Your task to perform on an android device: stop showing notifications on the lock screen Image 0: 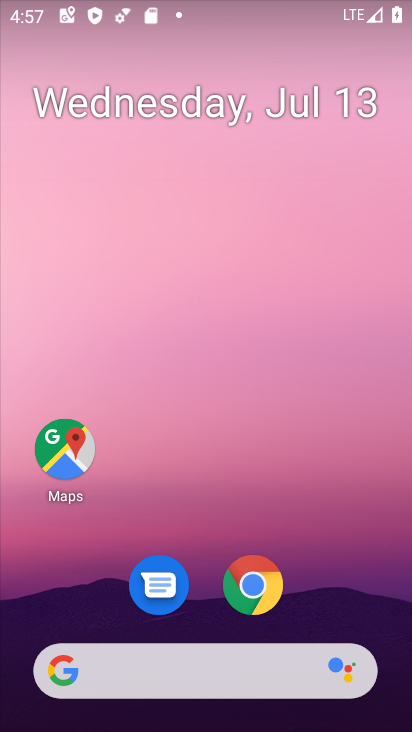
Step 0: drag from (312, 551) to (326, 36)
Your task to perform on an android device: stop showing notifications on the lock screen Image 1: 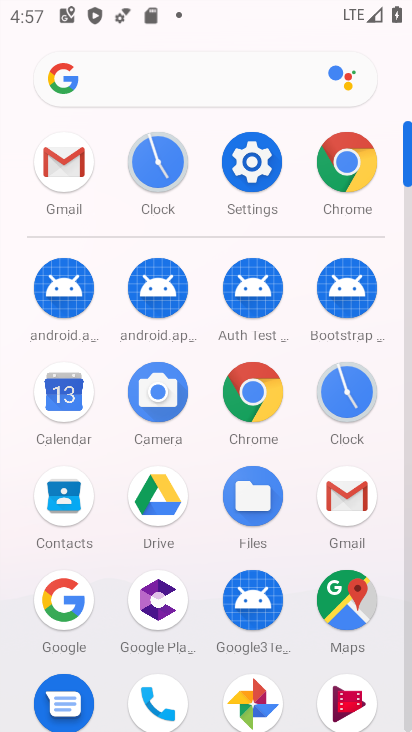
Step 1: click (260, 155)
Your task to perform on an android device: stop showing notifications on the lock screen Image 2: 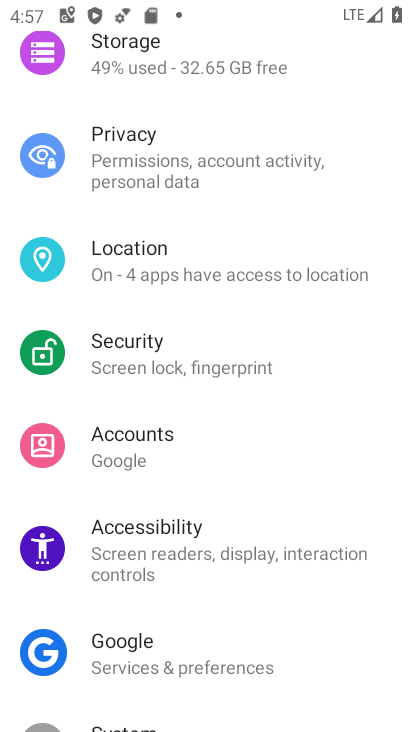
Step 2: drag from (245, 239) to (236, 671)
Your task to perform on an android device: stop showing notifications on the lock screen Image 3: 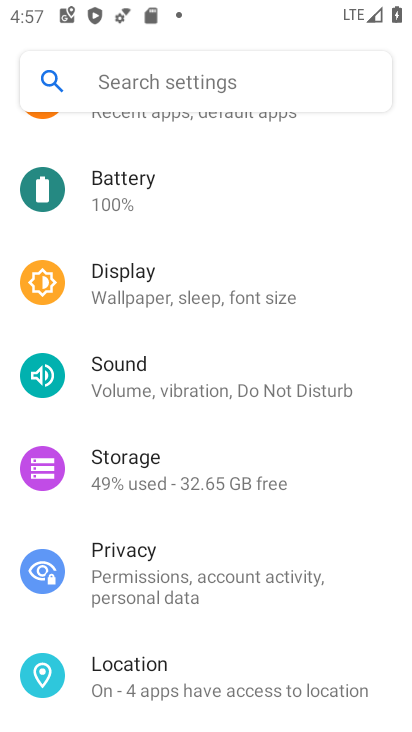
Step 3: drag from (250, 241) to (261, 618)
Your task to perform on an android device: stop showing notifications on the lock screen Image 4: 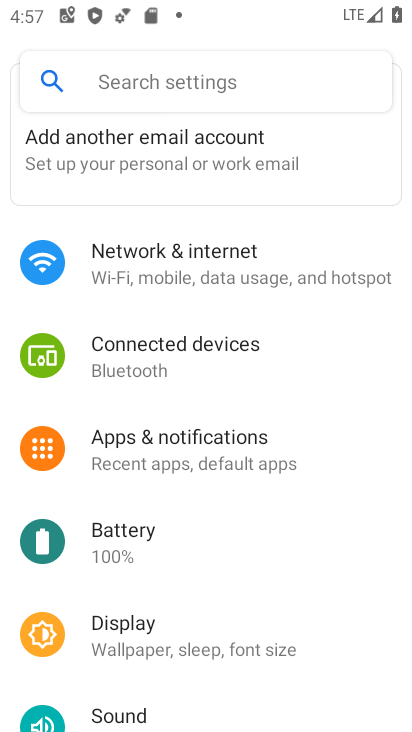
Step 4: click (246, 443)
Your task to perform on an android device: stop showing notifications on the lock screen Image 5: 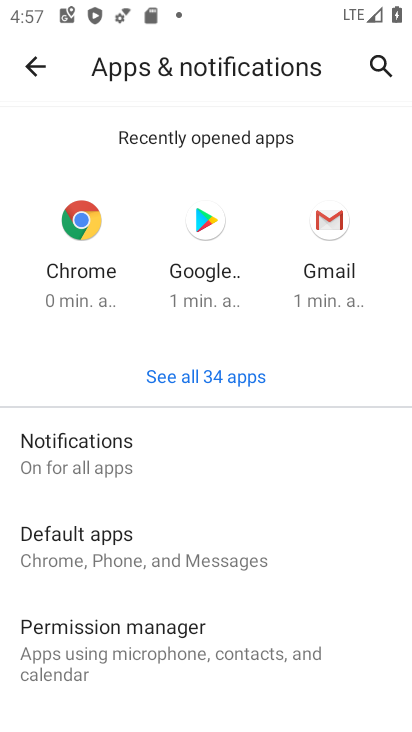
Step 5: click (115, 448)
Your task to perform on an android device: stop showing notifications on the lock screen Image 6: 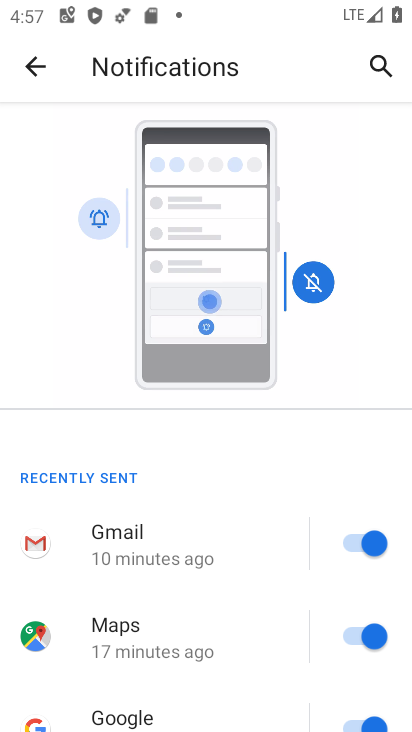
Step 6: drag from (189, 612) to (217, 150)
Your task to perform on an android device: stop showing notifications on the lock screen Image 7: 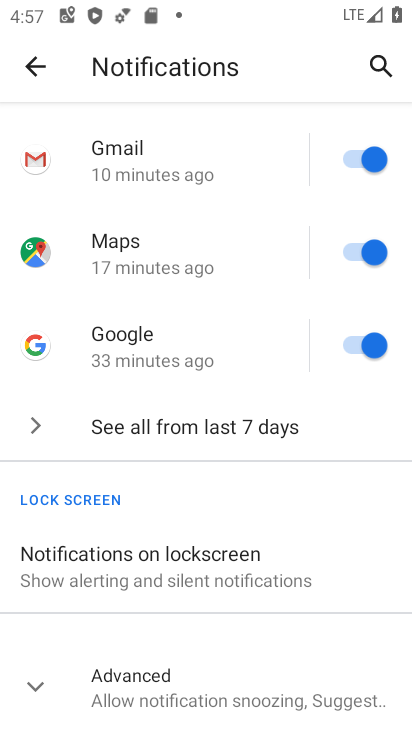
Step 7: click (199, 569)
Your task to perform on an android device: stop showing notifications on the lock screen Image 8: 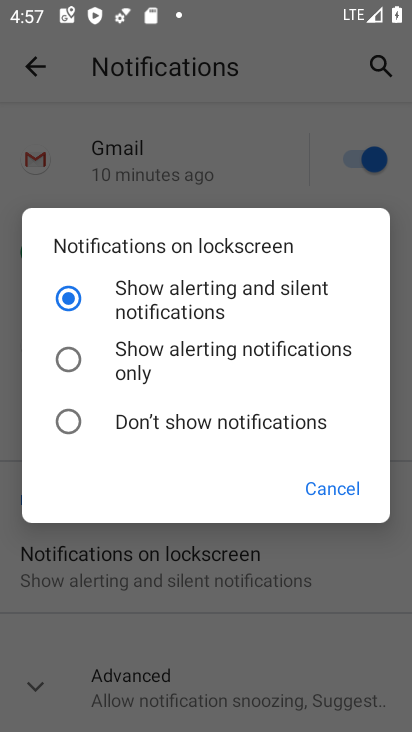
Step 8: click (74, 418)
Your task to perform on an android device: stop showing notifications on the lock screen Image 9: 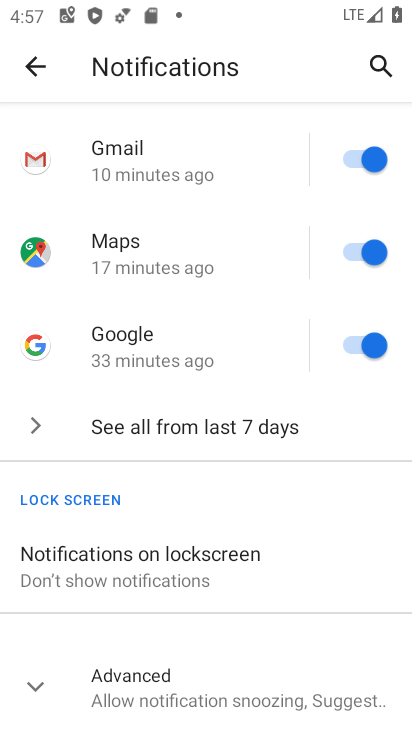
Step 9: task complete